Your task to perform on an android device: delete a single message in the gmail app Image 0: 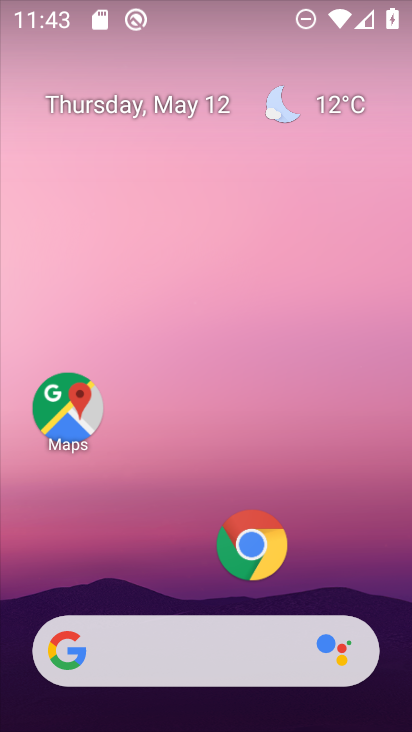
Step 0: drag from (194, 583) to (211, 100)
Your task to perform on an android device: delete a single message in the gmail app Image 1: 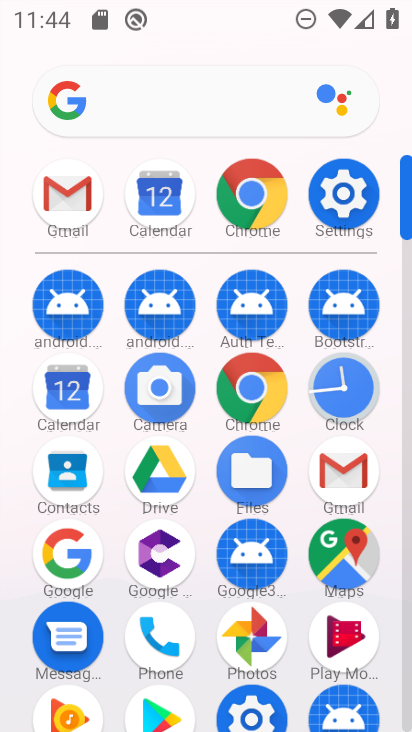
Step 1: click (338, 467)
Your task to perform on an android device: delete a single message in the gmail app Image 2: 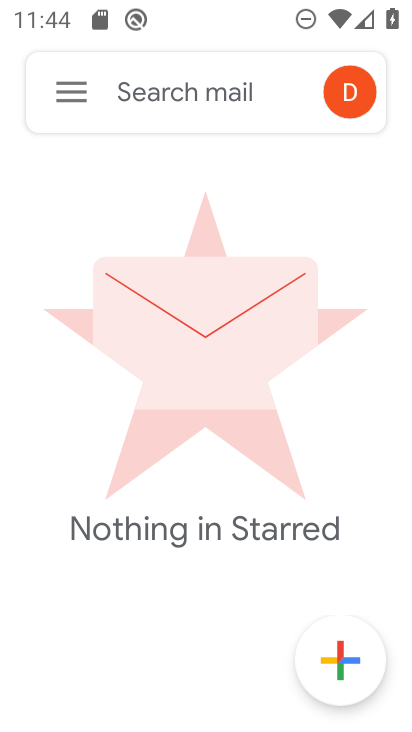
Step 2: click (69, 84)
Your task to perform on an android device: delete a single message in the gmail app Image 3: 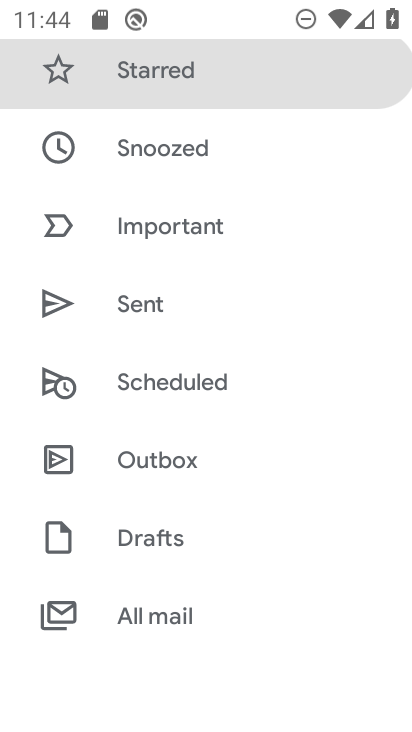
Step 3: click (196, 617)
Your task to perform on an android device: delete a single message in the gmail app Image 4: 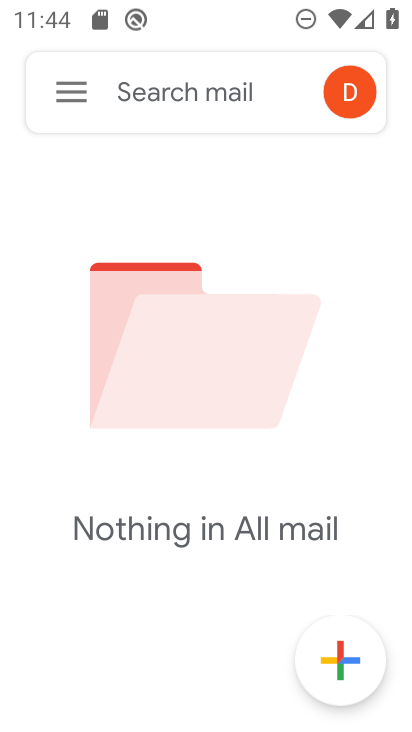
Step 4: task complete